Your task to perform on an android device: View the shopping cart on walmart. Search for razer naga on walmart, select the first entry, add it to the cart, then select checkout. Image 0: 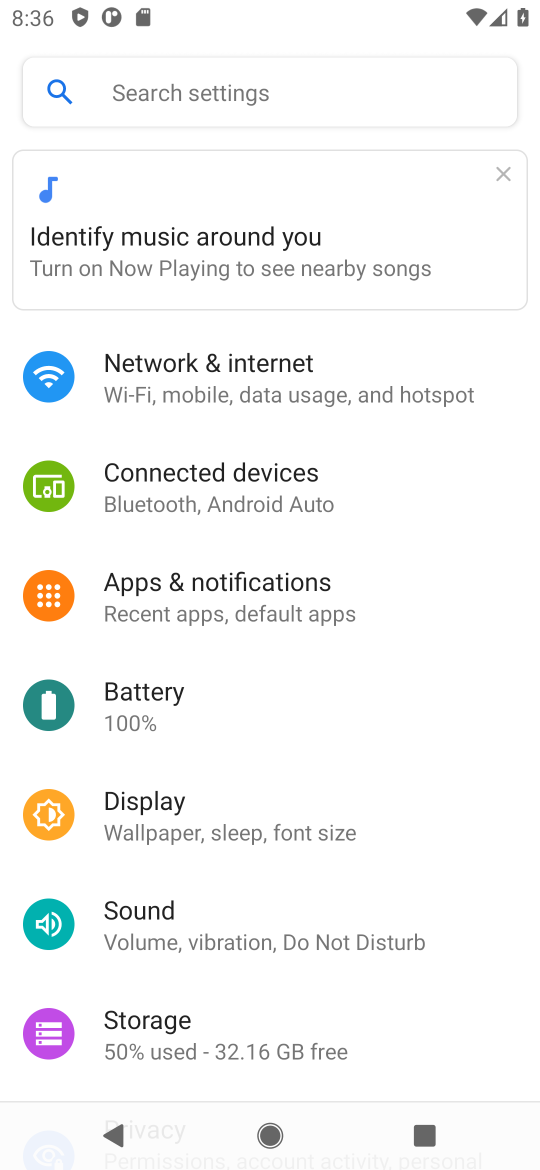
Step 0: press home button
Your task to perform on an android device: View the shopping cart on walmart. Search for razer naga on walmart, select the first entry, add it to the cart, then select checkout. Image 1: 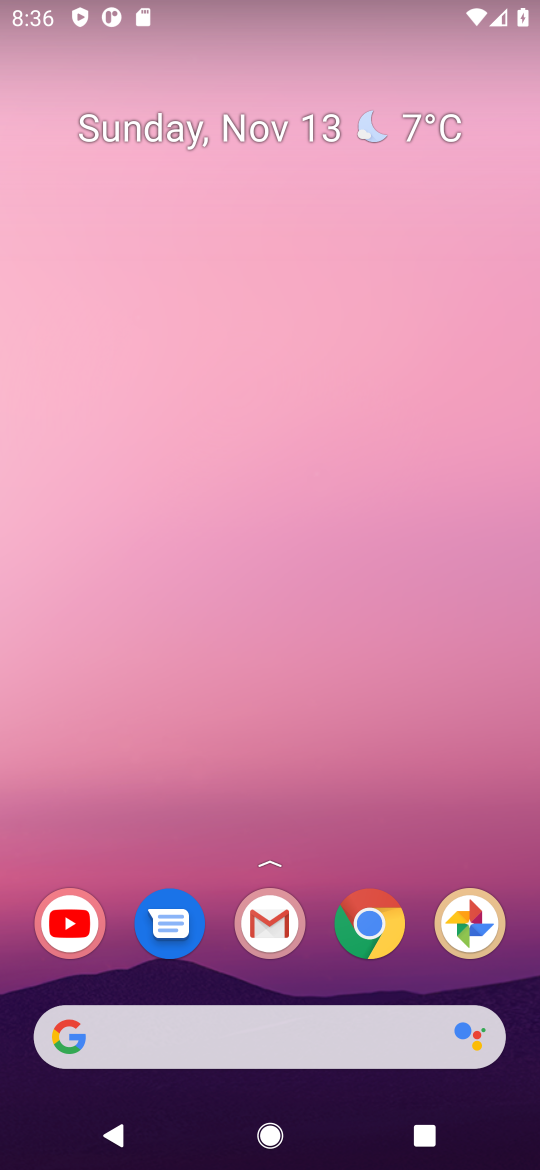
Step 1: click (363, 935)
Your task to perform on an android device: View the shopping cart on walmart. Search for razer naga on walmart, select the first entry, add it to the cart, then select checkout. Image 2: 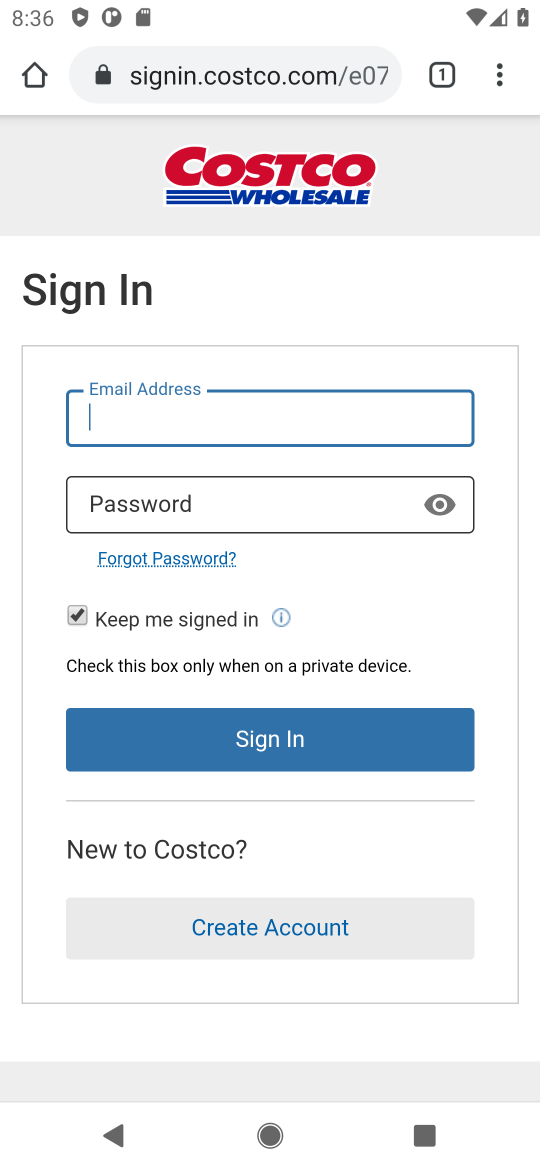
Step 2: click (181, 79)
Your task to perform on an android device: View the shopping cart on walmart. Search for razer naga on walmart, select the first entry, add it to the cart, then select checkout. Image 3: 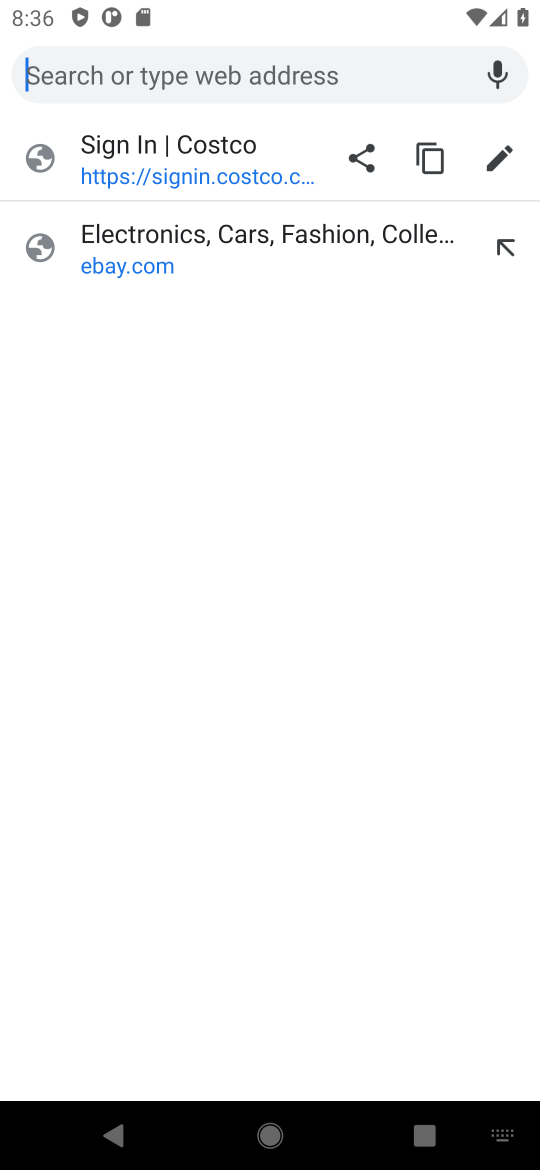
Step 3: type "walmart"
Your task to perform on an android device: View the shopping cart on walmart. Search for razer naga on walmart, select the first entry, add it to the cart, then select checkout. Image 4: 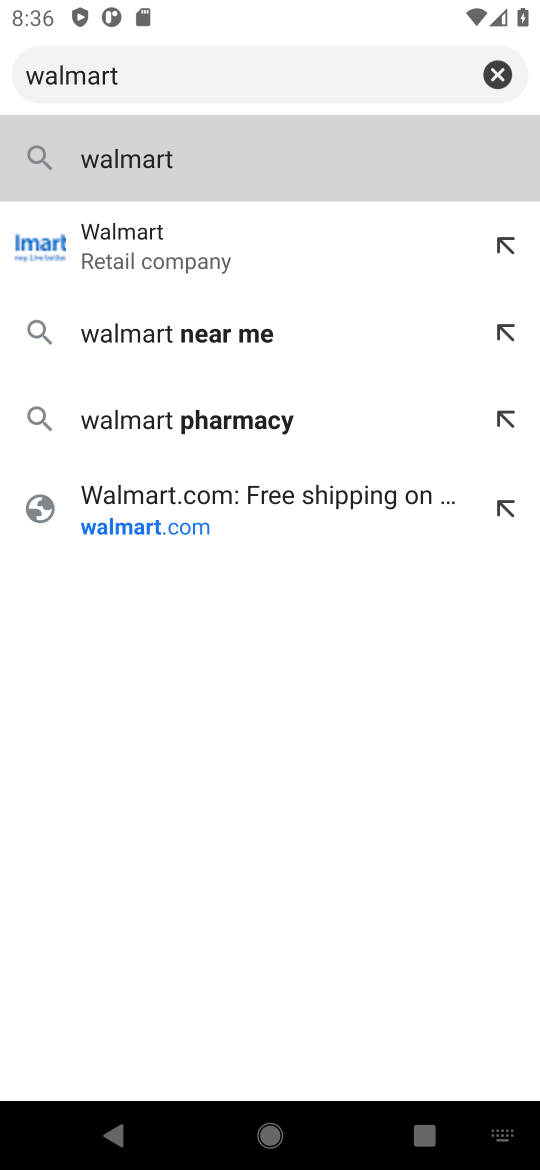
Step 4: click (215, 516)
Your task to perform on an android device: View the shopping cart on walmart. Search for razer naga on walmart, select the first entry, add it to the cart, then select checkout. Image 5: 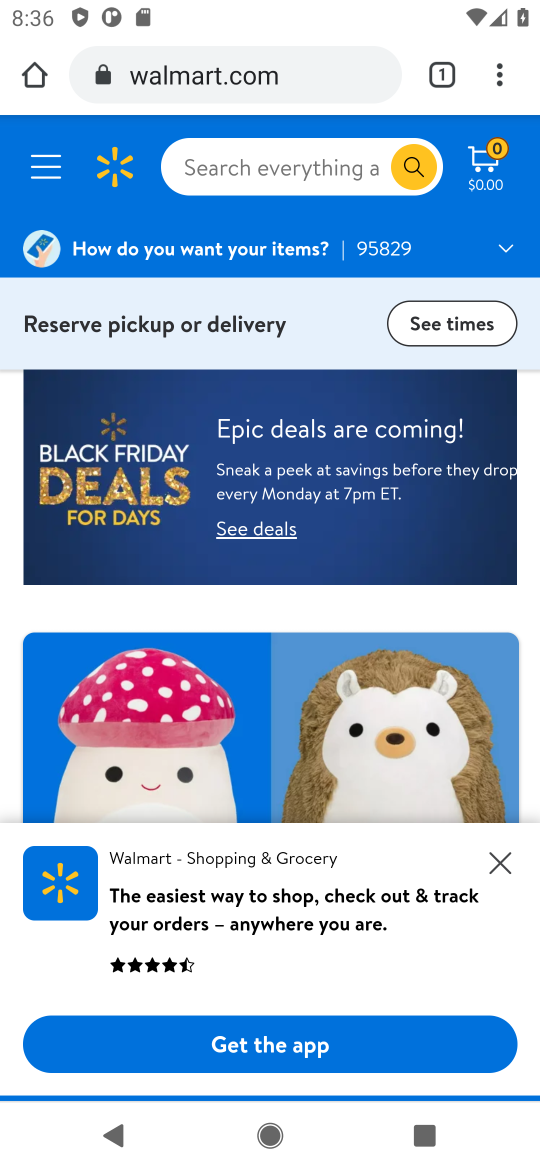
Step 5: click (261, 174)
Your task to perform on an android device: View the shopping cart on walmart. Search for razer naga on walmart, select the first entry, add it to the cart, then select checkout. Image 6: 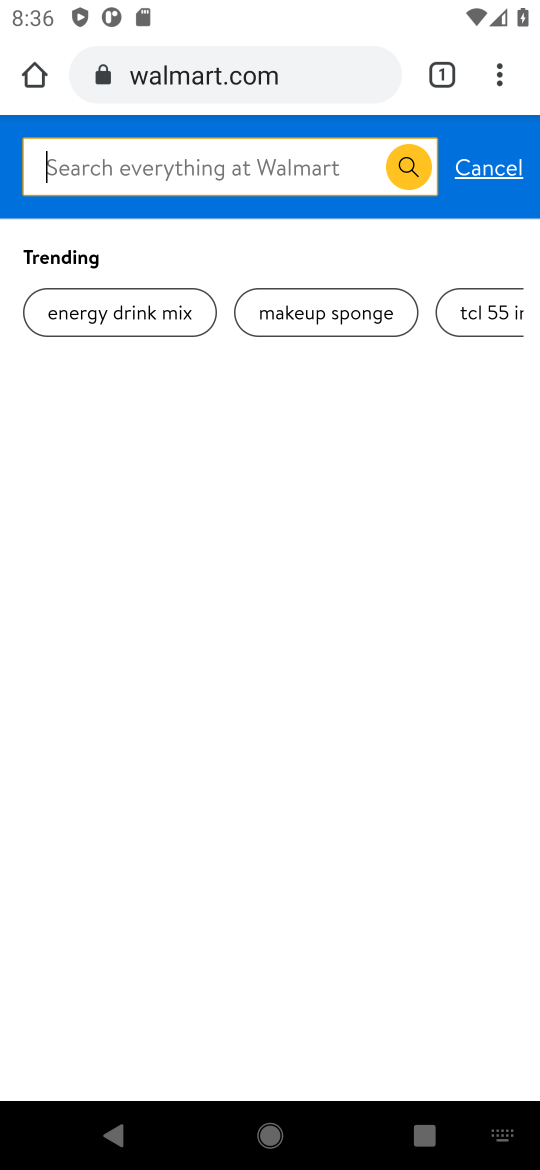
Step 6: type "razer naga"
Your task to perform on an android device: View the shopping cart on walmart. Search for razer naga on walmart, select the first entry, add it to the cart, then select checkout. Image 7: 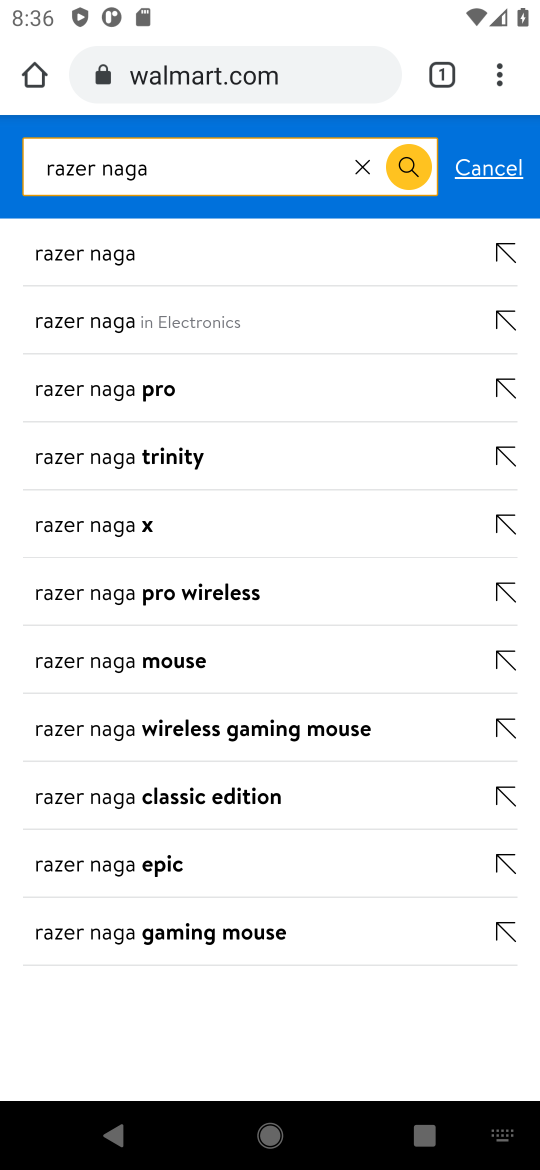
Step 7: press enter
Your task to perform on an android device: View the shopping cart on walmart. Search for razer naga on walmart, select the first entry, add it to the cart, then select checkout. Image 8: 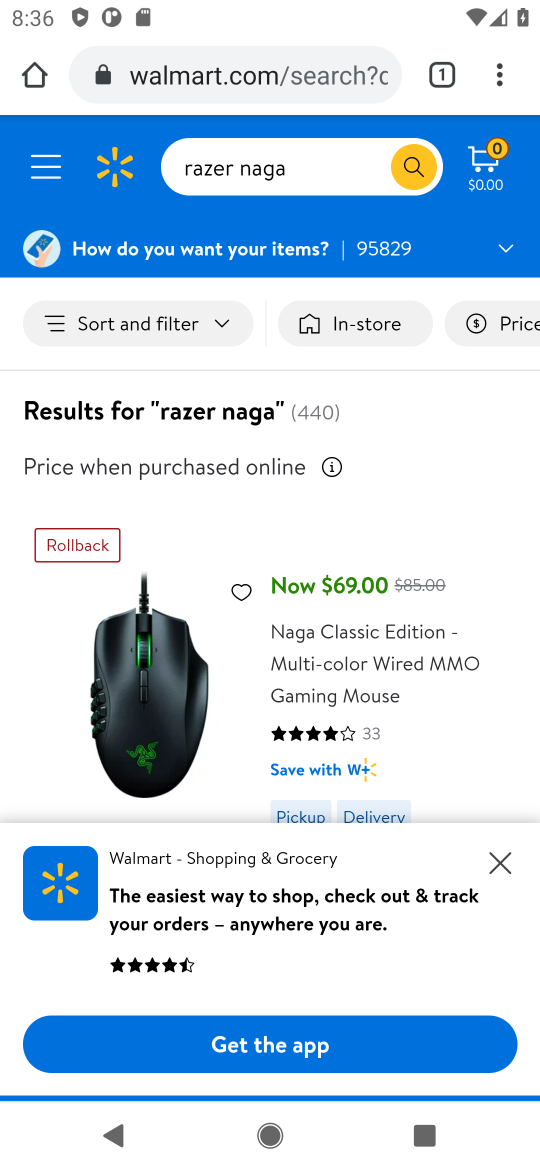
Step 8: click (512, 867)
Your task to perform on an android device: View the shopping cart on walmart. Search for razer naga on walmart, select the first entry, add it to the cart, then select checkout. Image 9: 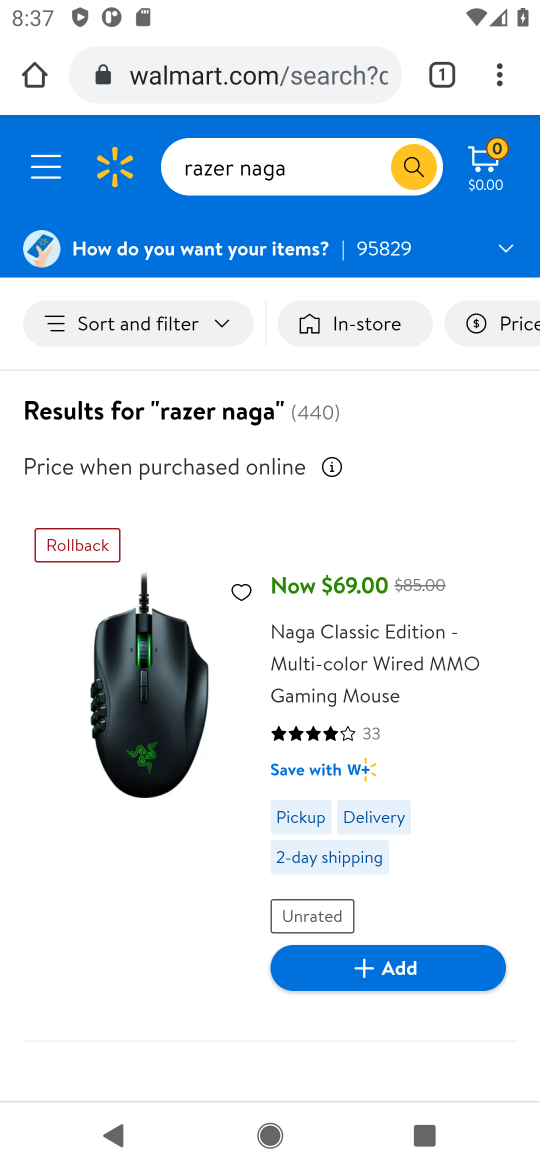
Step 9: click (362, 981)
Your task to perform on an android device: View the shopping cart on walmart. Search for razer naga on walmart, select the first entry, add it to the cart, then select checkout. Image 10: 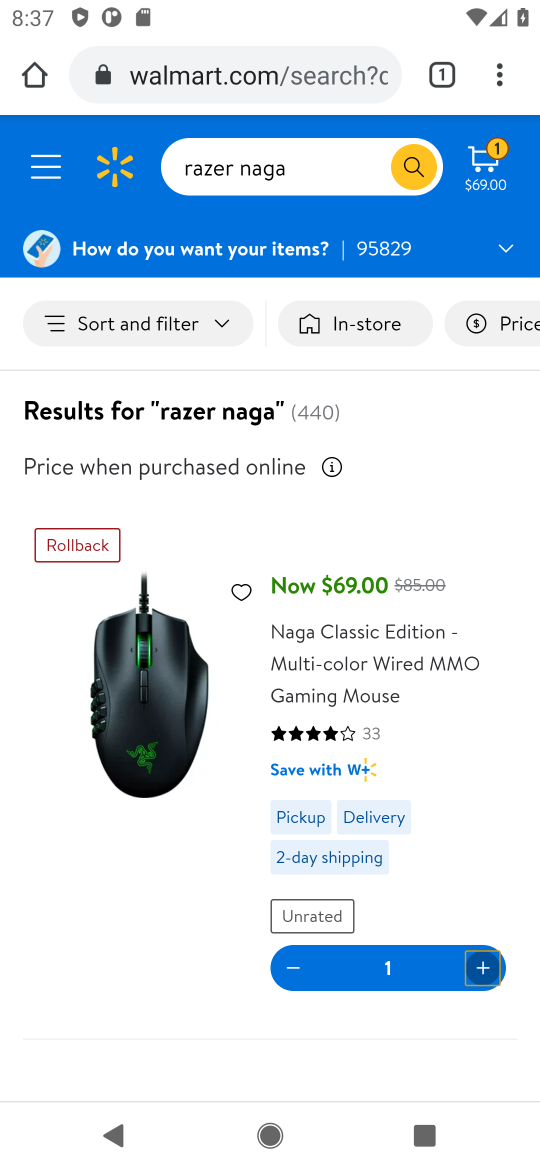
Step 10: click (484, 189)
Your task to perform on an android device: View the shopping cart on walmart. Search for razer naga on walmart, select the first entry, add it to the cart, then select checkout. Image 11: 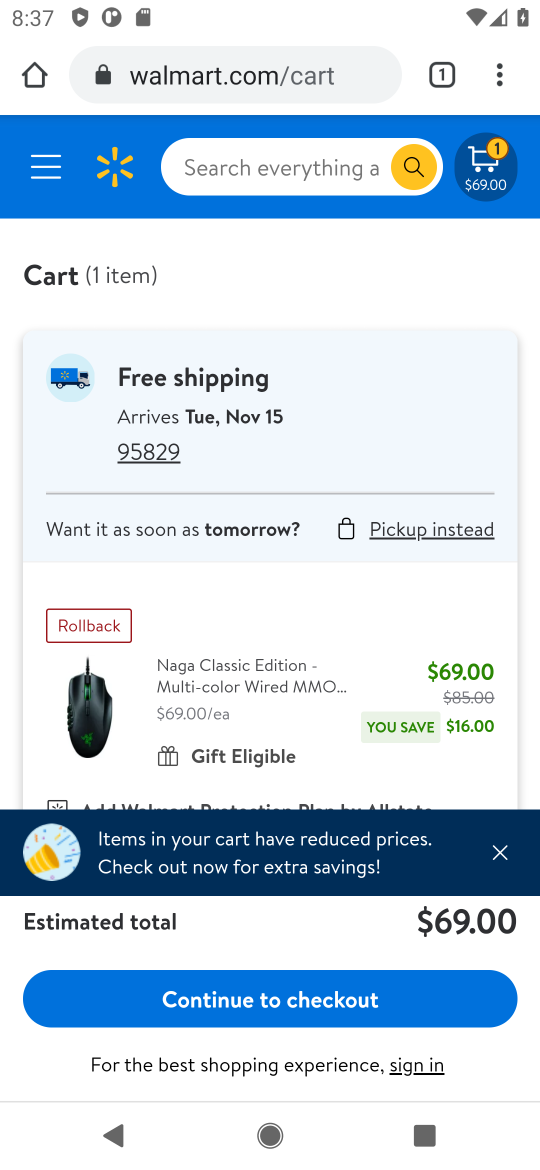
Step 11: click (243, 1007)
Your task to perform on an android device: View the shopping cart on walmart. Search for razer naga on walmart, select the first entry, add it to the cart, then select checkout. Image 12: 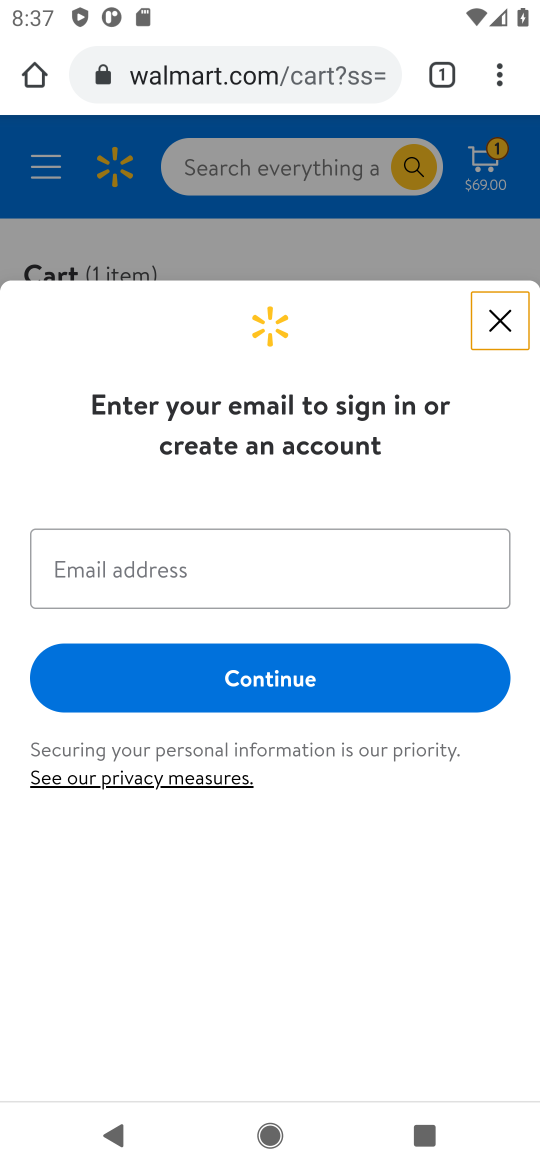
Step 12: task complete